Your task to perform on an android device: Open ESPN.com Image 0: 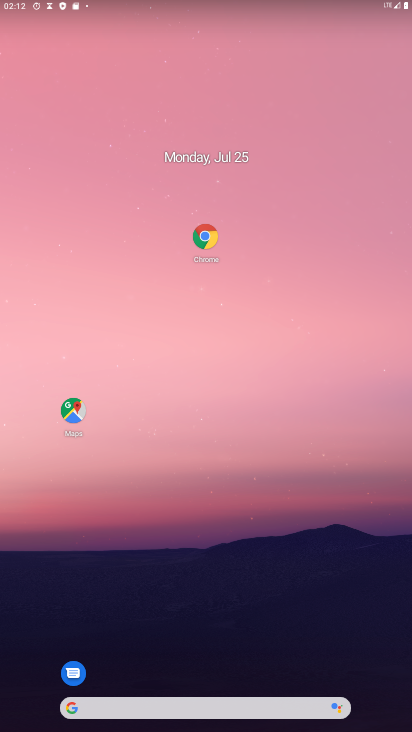
Step 0: drag from (262, 644) to (354, 13)
Your task to perform on an android device: Open ESPN.com Image 1: 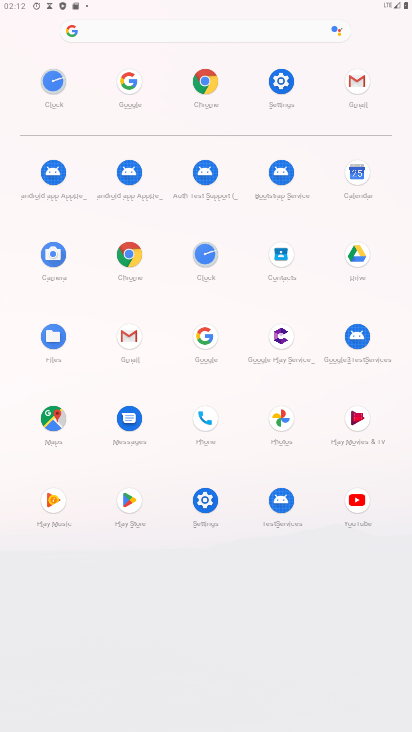
Step 1: click (128, 252)
Your task to perform on an android device: Open ESPN.com Image 2: 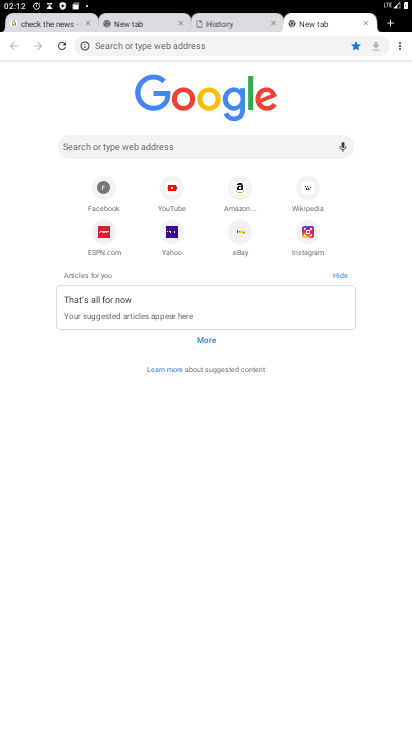
Step 2: click (104, 237)
Your task to perform on an android device: Open ESPN.com Image 3: 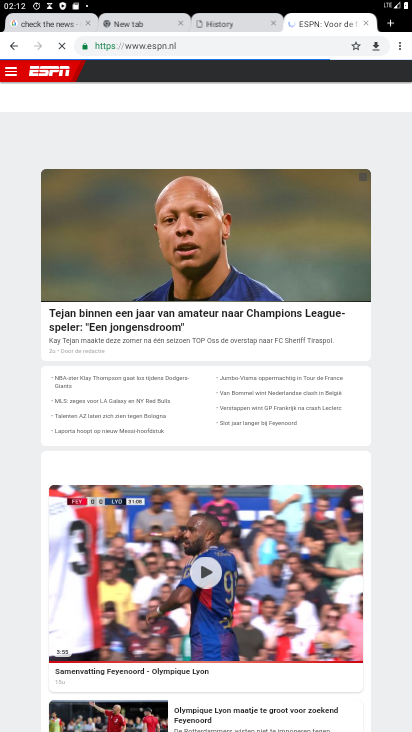
Step 3: task complete